Your task to perform on an android device: Search for "acer predator" on newegg, select the first entry, and add it to the cart. Image 0: 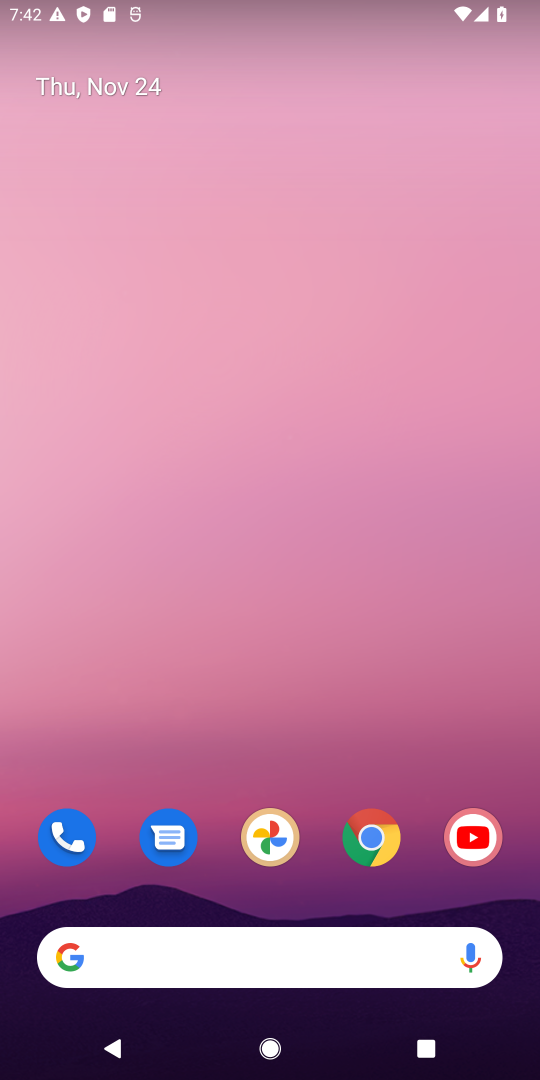
Step 0: click (371, 819)
Your task to perform on an android device: Search for "acer predator" on newegg, select the first entry, and add it to the cart. Image 1: 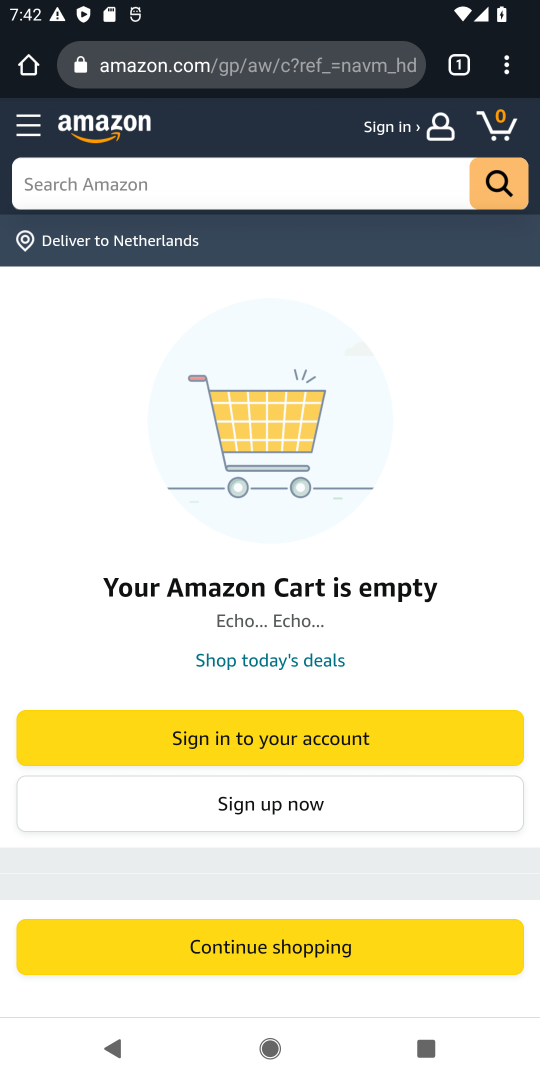
Step 1: click (249, 58)
Your task to perform on an android device: Search for "acer predator" on newegg, select the first entry, and add it to the cart. Image 2: 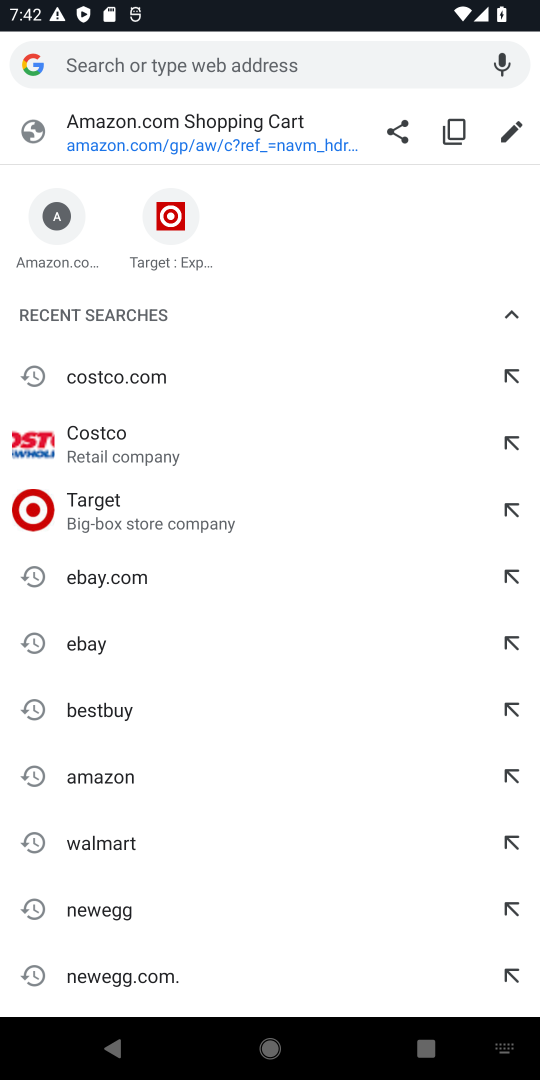
Step 2: type "newegg"
Your task to perform on an android device: Search for "acer predator" on newegg, select the first entry, and add it to the cart. Image 3: 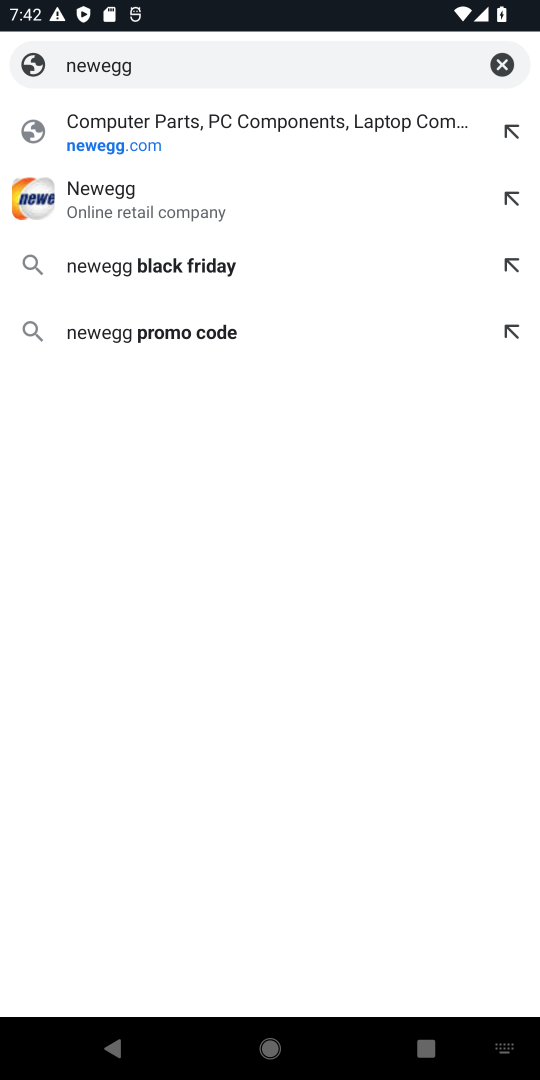
Step 3: click (162, 211)
Your task to perform on an android device: Search for "acer predator" on newegg, select the first entry, and add it to the cart. Image 4: 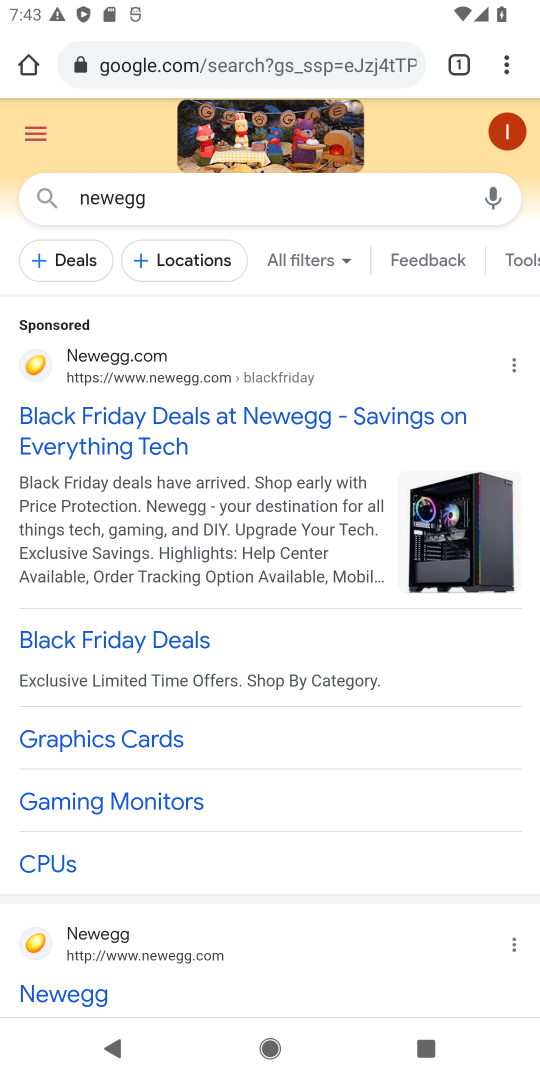
Step 4: click (133, 454)
Your task to perform on an android device: Search for "acer predator" on newegg, select the first entry, and add it to the cart. Image 5: 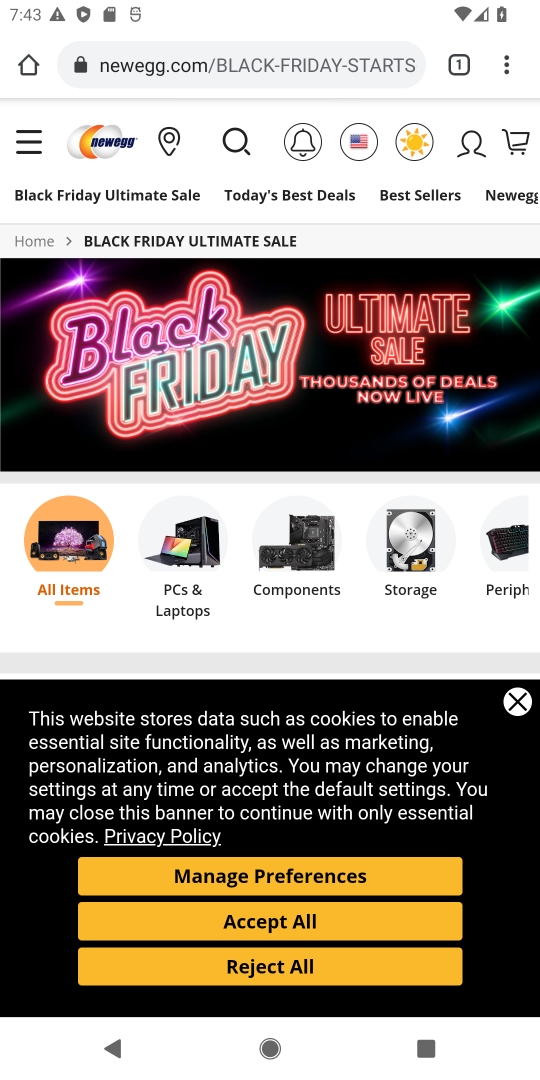
Step 5: click (233, 138)
Your task to perform on an android device: Search for "acer predator" on newegg, select the first entry, and add it to the cart. Image 6: 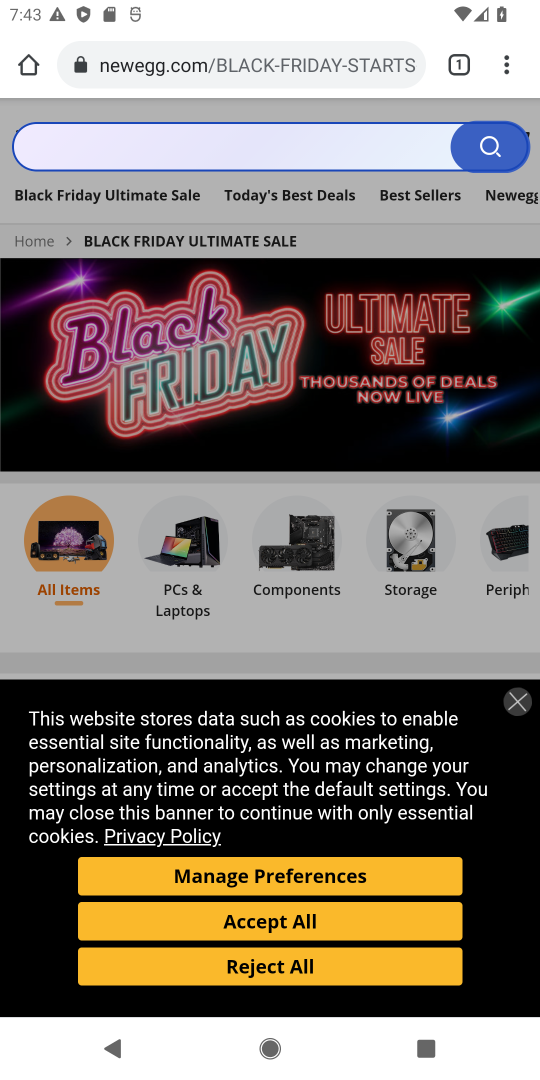
Step 6: type "acer predator"
Your task to perform on an android device: Search for "acer predator" on newegg, select the first entry, and add it to the cart. Image 7: 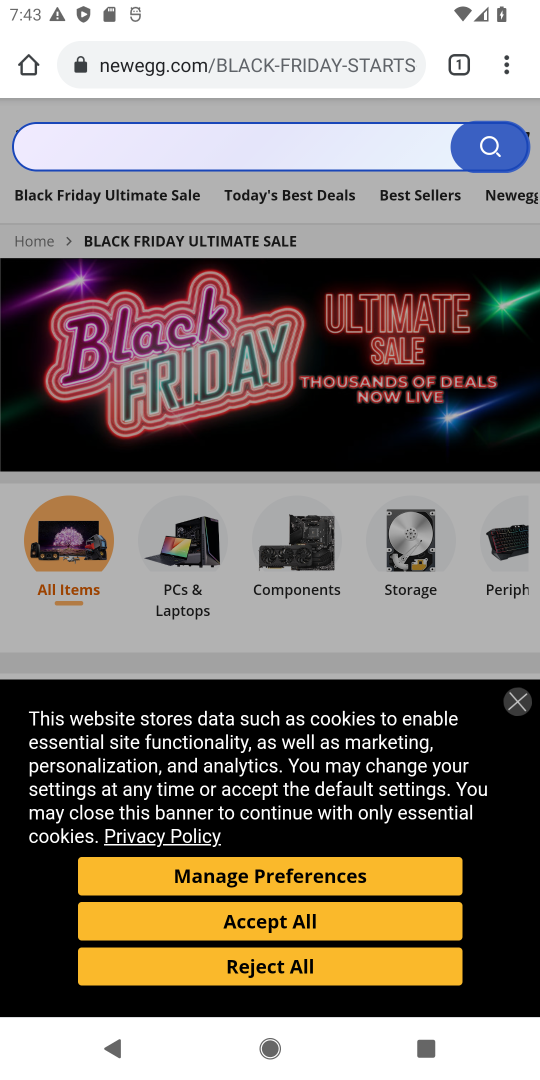
Step 7: click (322, 145)
Your task to perform on an android device: Search for "acer predator" on newegg, select the first entry, and add it to the cart. Image 8: 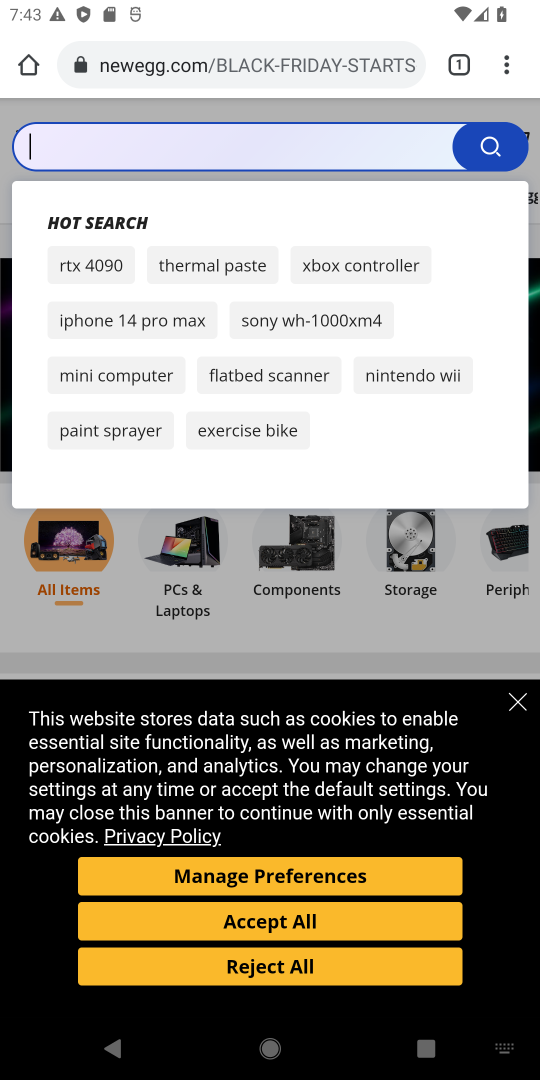
Step 8: type "acer predator"
Your task to perform on an android device: Search for "acer predator" on newegg, select the first entry, and add it to the cart. Image 9: 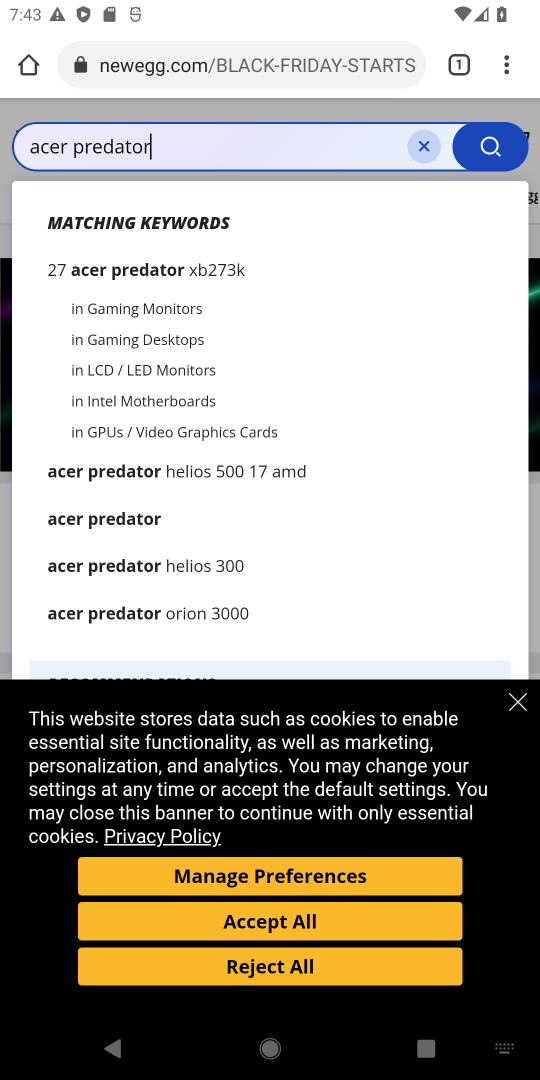
Step 9: click (135, 520)
Your task to perform on an android device: Search for "acer predator" on newegg, select the first entry, and add it to the cart. Image 10: 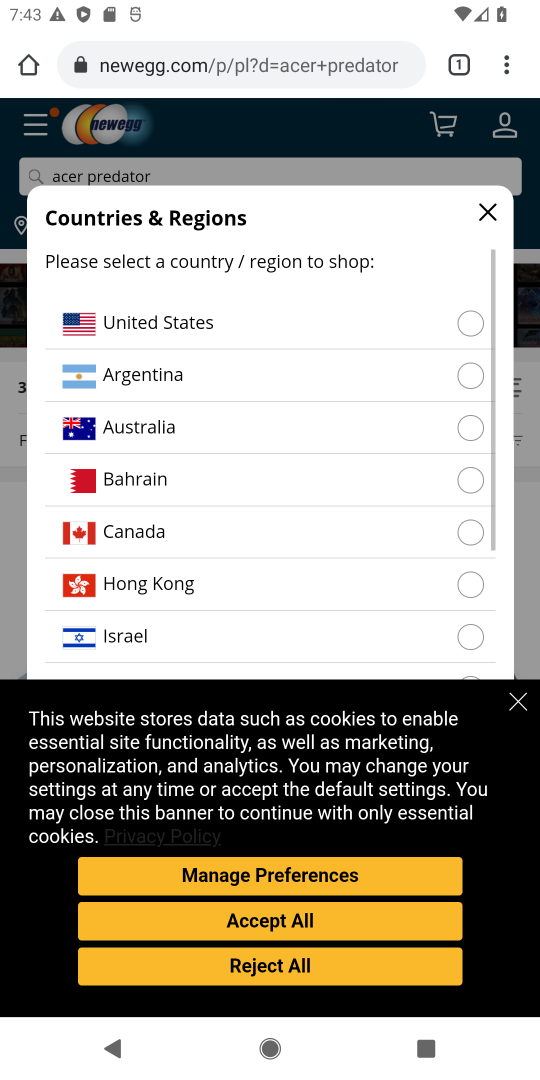
Step 10: click (519, 696)
Your task to perform on an android device: Search for "acer predator" on newegg, select the first entry, and add it to the cart. Image 11: 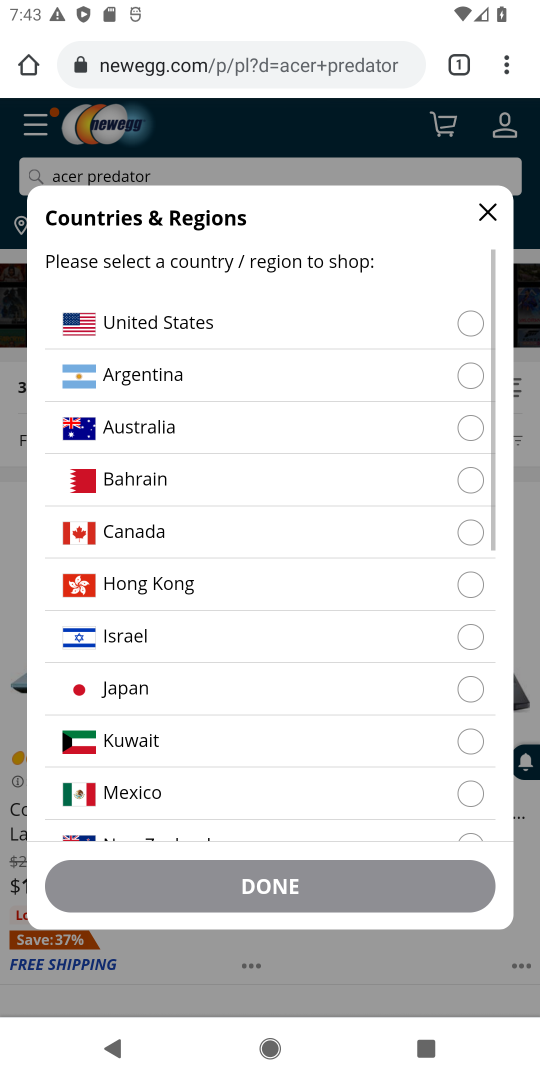
Step 11: click (486, 208)
Your task to perform on an android device: Search for "acer predator" on newegg, select the first entry, and add it to the cart. Image 12: 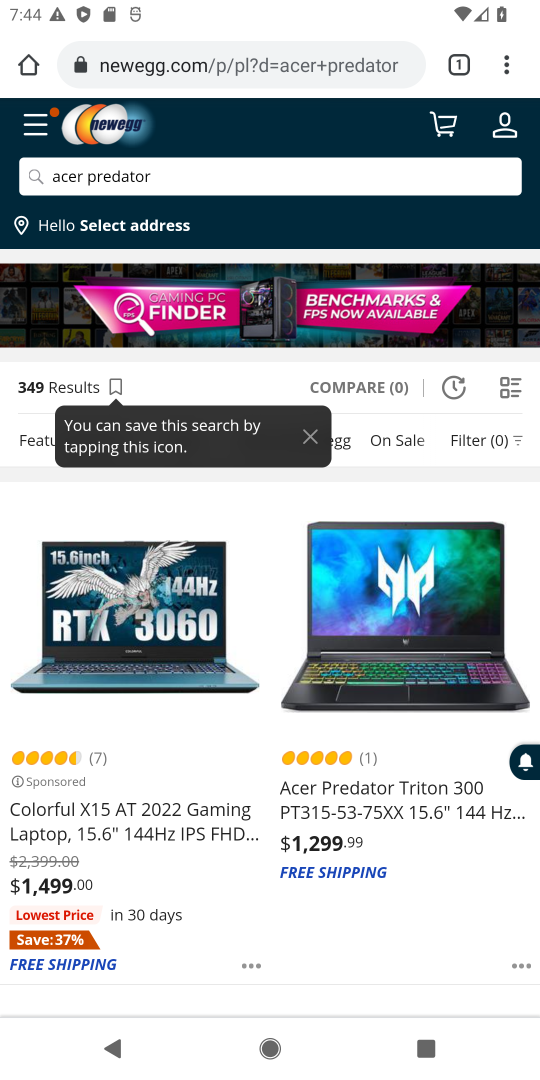
Step 12: click (381, 716)
Your task to perform on an android device: Search for "acer predator" on newegg, select the first entry, and add it to the cart. Image 13: 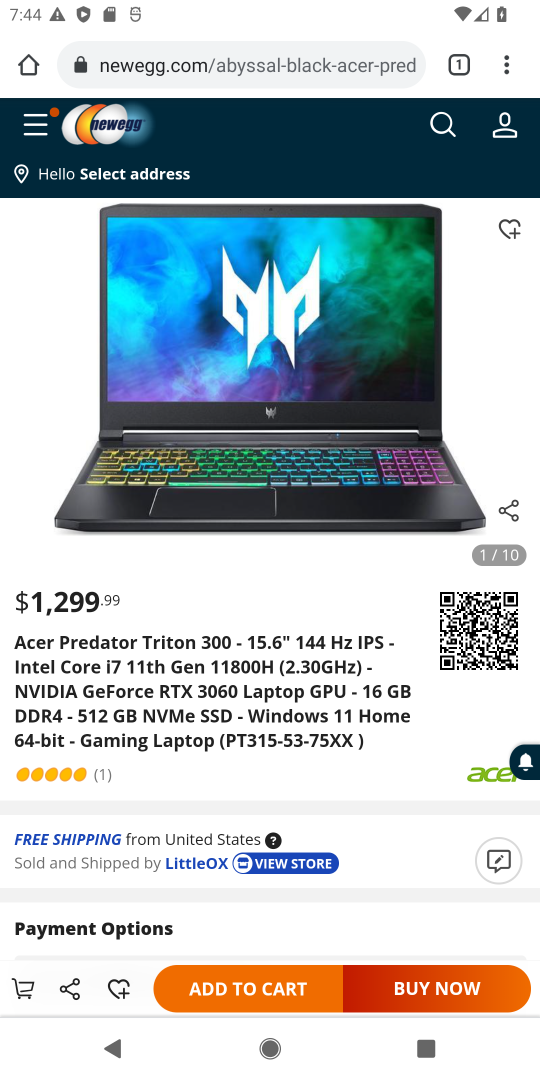
Step 13: click (260, 989)
Your task to perform on an android device: Search for "acer predator" on newegg, select the first entry, and add it to the cart. Image 14: 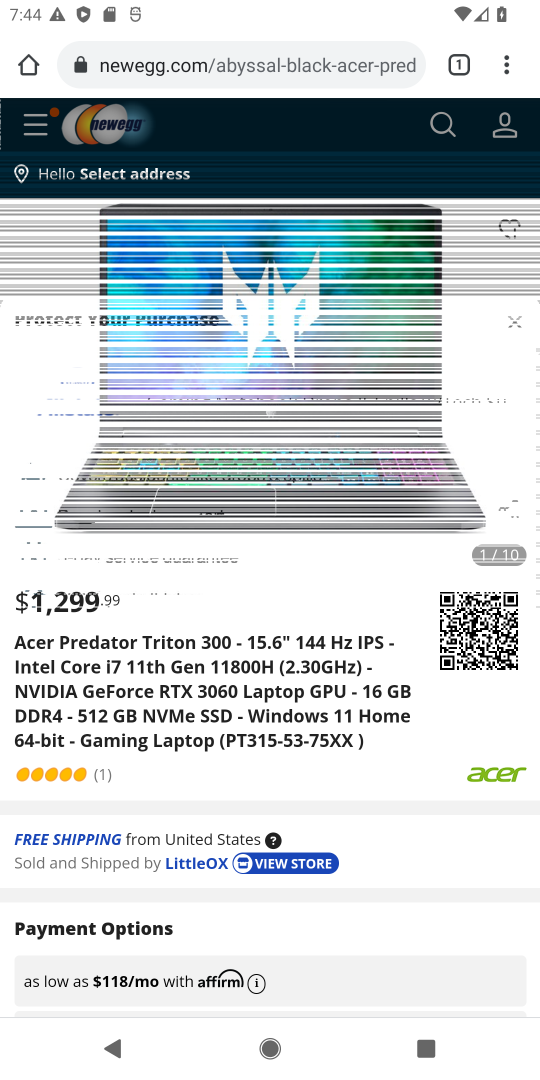
Step 14: click (181, 977)
Your task to perform on an android device: Search for "acer predator" on newegg, select the first entry, and add it to the cart. Image 15: 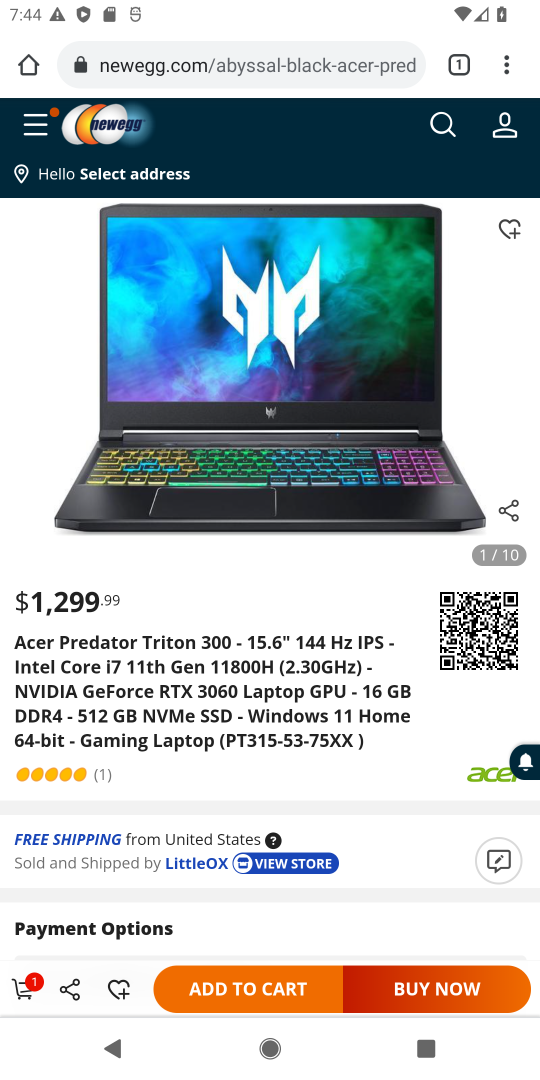
Step 15: task complete